Your task to perform on an android device: turn off location Image 0: 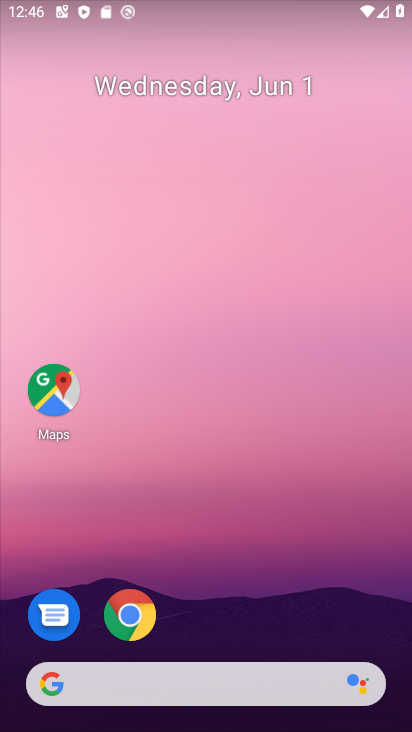
Step 0: task complete